Your task to perform on an android device: empty trash in google photos Image 0: 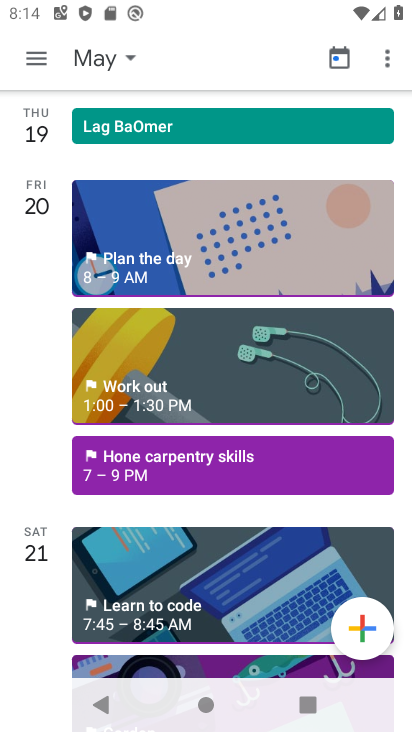
Step 0: press home button
Your task to perform on an android device: empty trash in google photos Image 1: 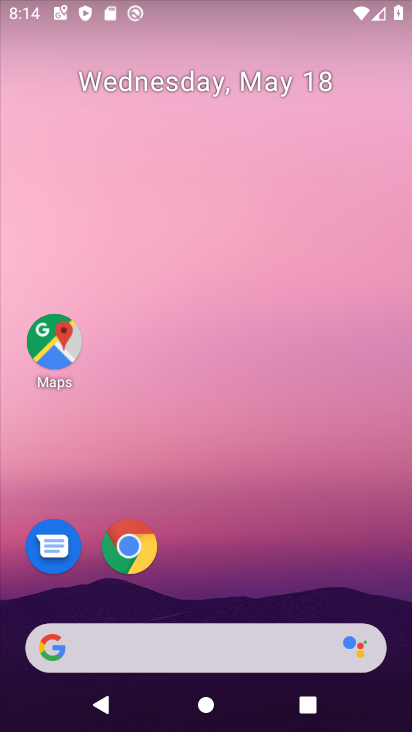
Step 1: drag from (231, 687) to (255, 81)
Your task to perform on an android device: empty trash in google photos Image 2: 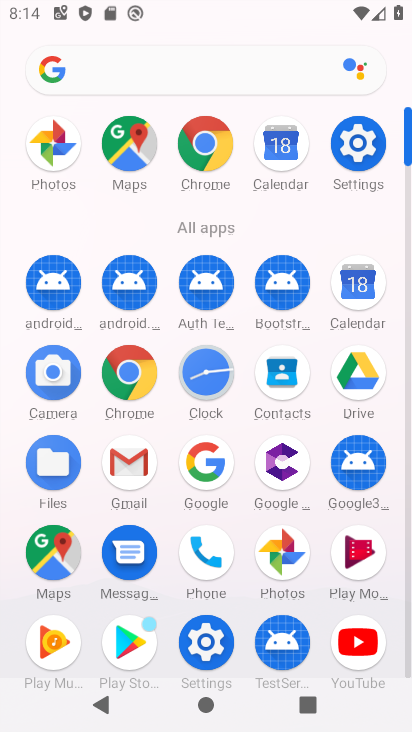
Step 2: click (265, 545)
Your task to perform on an android device: empty trash in google photos Image 3: 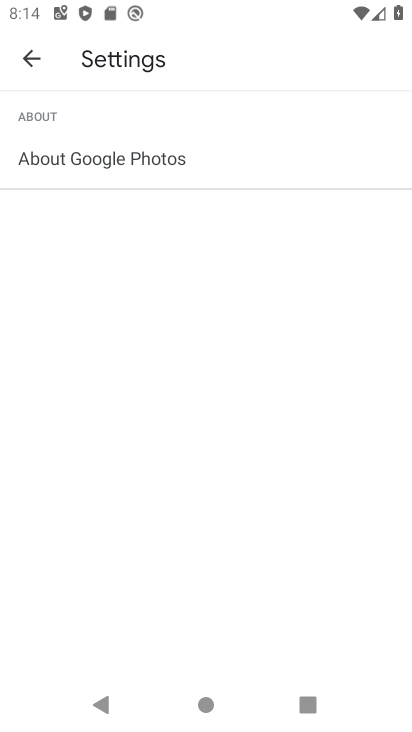
Step 3: click (35, 73)
Your task to perform on an android device: empty trash in google photos Image 4: 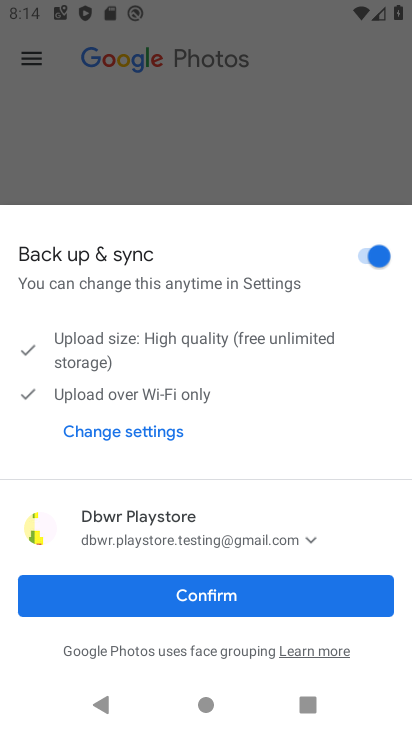
Step 4: click (38, 70)
Your task to perform on an android device: empty trash in google photos Image 5: 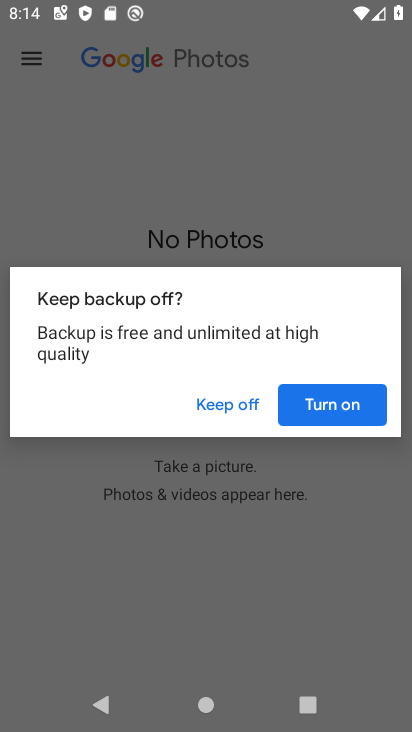
Step 5: click (301, 414)
Your task to perform on an android device: empty trash in google photos Image 6: 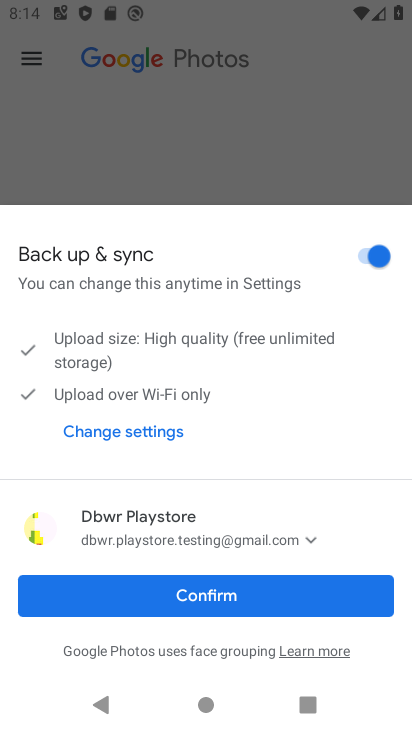
Step 6: click (171, 588)
Your task to perform on an android device: empty trash in google photos Image 7: 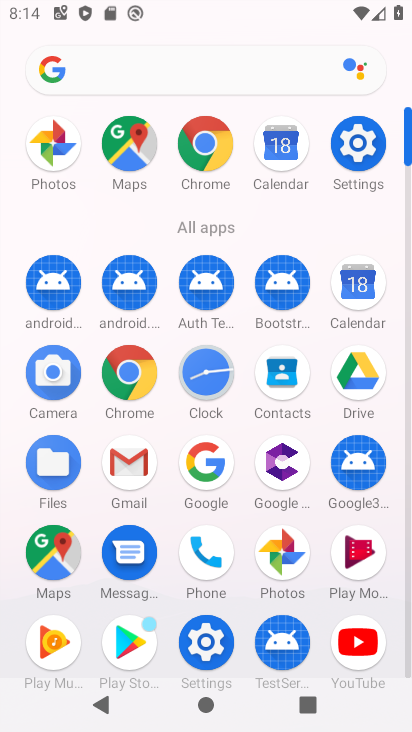
Step 7: click (290, 547)
Your task to perform on an android device: empty trash in google photos Image 8: 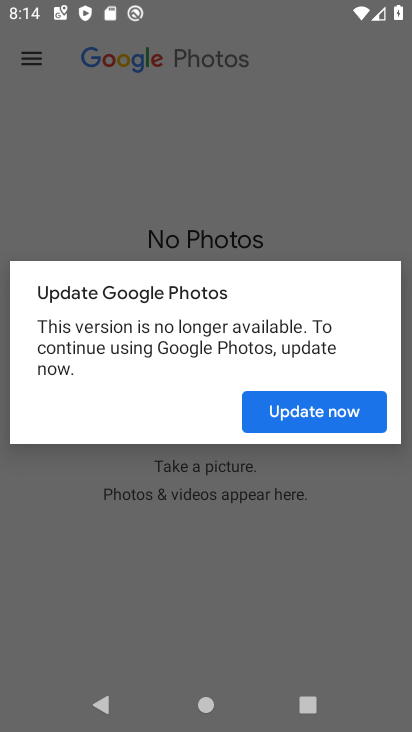
Step 8: click (300, 416)
Your task to perform on an android device: empty trash in google photos Image 9: 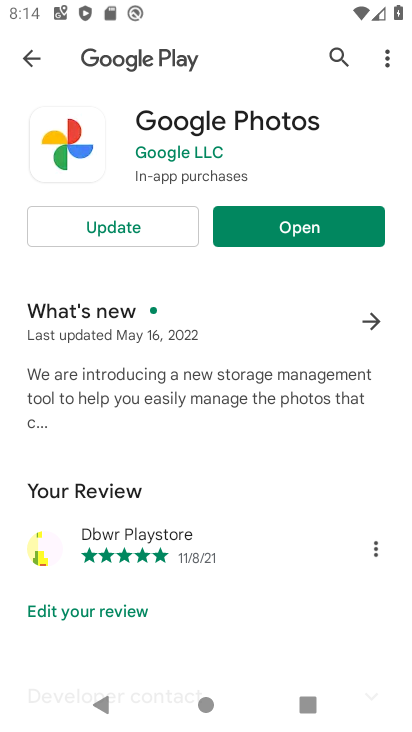
Step 9: click (315, 229)
Your task to perform on an android device: empty trash in google photos Image 10: 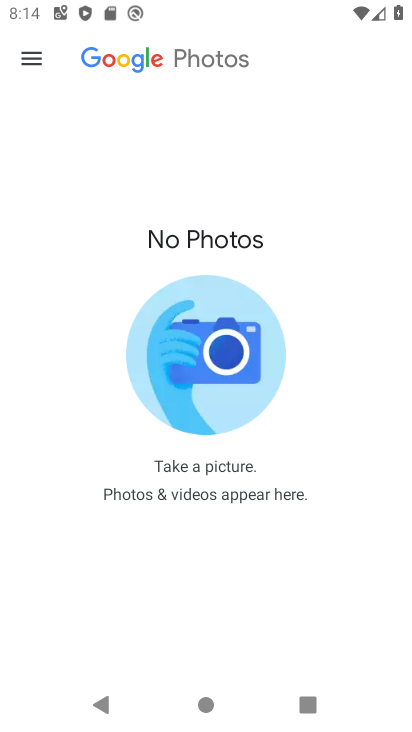
Step 10: click (20, 72)
Your task to perform on an android device: empty trash in google photos Image 11: 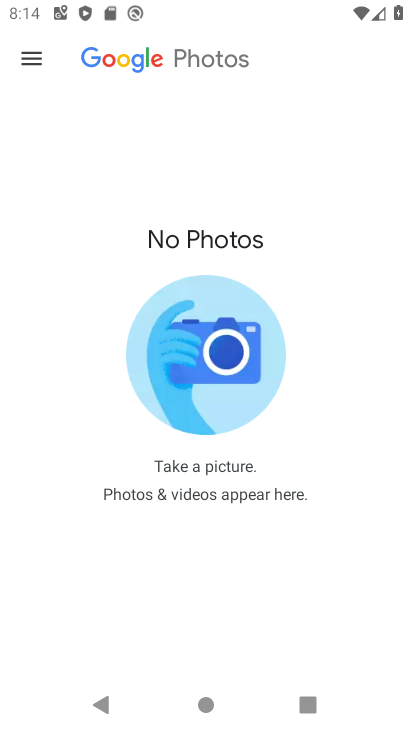
Step 11: click (33, 50)
Your task to perform on an android device: empty trash in google photos Image 12: 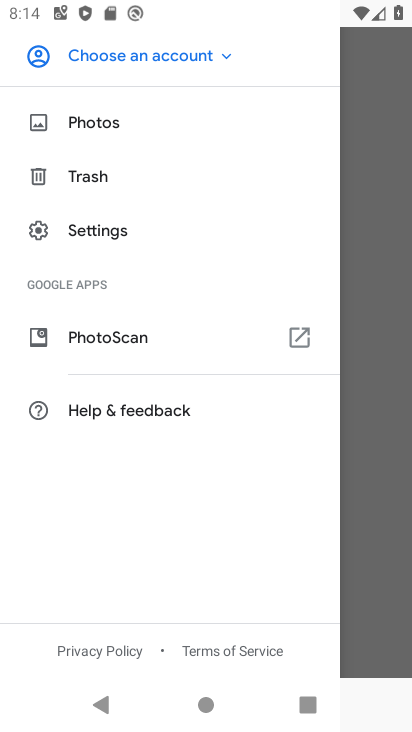
Step 12: click (96, 184)
Your task to perform on an android device: empty trash in google photos Image 13: 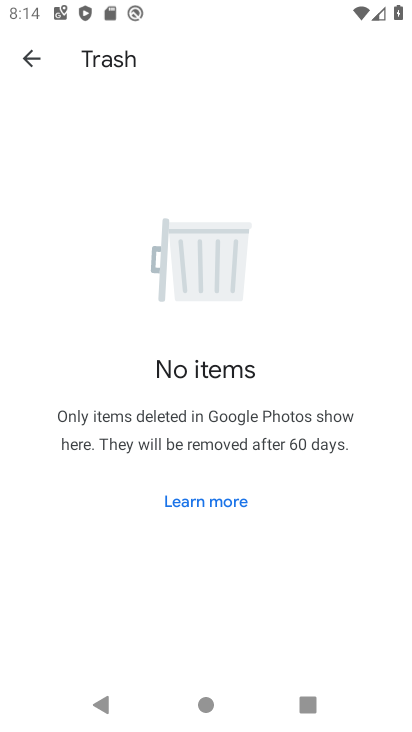
Step 13: task complete